Your task to perform on an android device: Open the phone app and click the voicemail tab. Image 0: 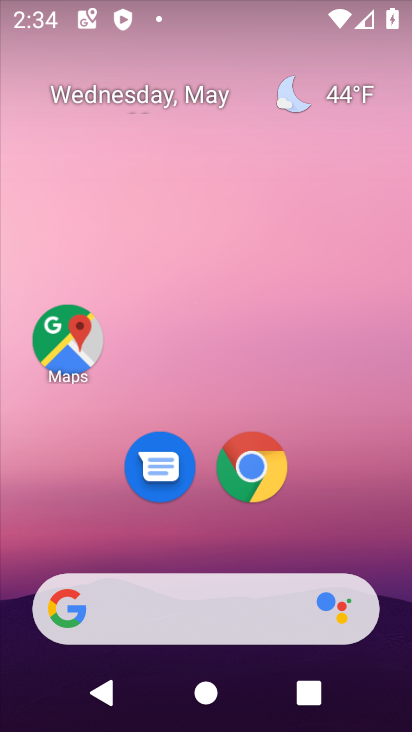
Step 0: drag from (371, 671) to (203, 52)
Your task to perform on an android device: Open the phone app and click the voicemail tab. Image 1: 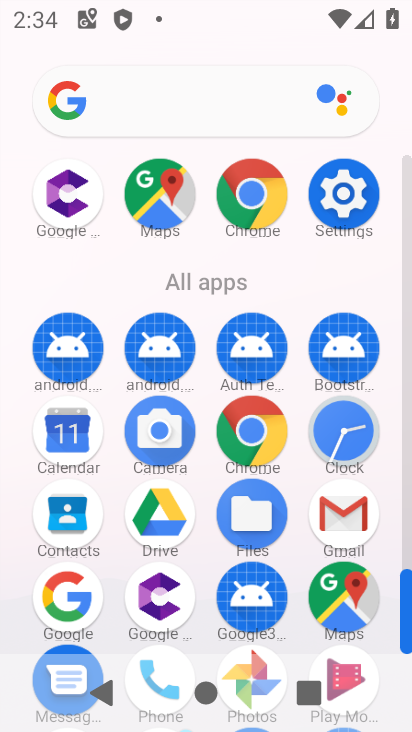
Step 1: click (158, 668)
Your task to perform on an android device: Open the phone app and click the voicemail tab. Image 2: 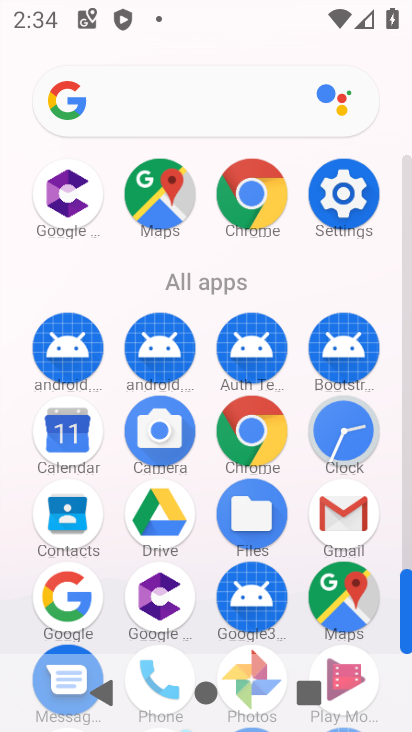
Step 2: drag from (202, 581) to (115, 121)
Your task to perform on an android device: Open the phone app and click the voicemail tab. Image 3: 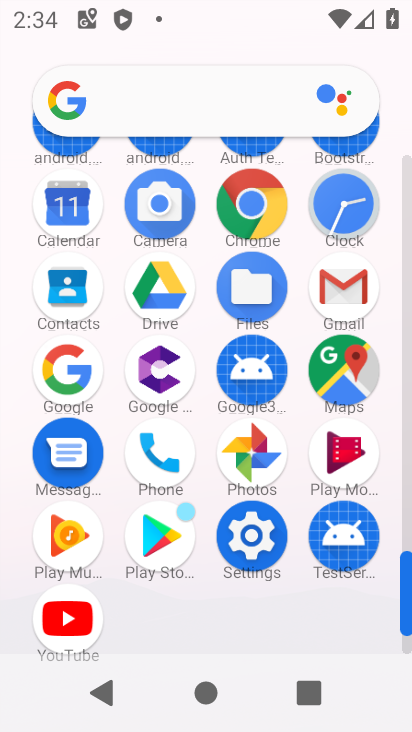
Step 3: drag from (199, 532) to (142, 242)
Your task to perform on an android device: Open the phone app and click the voicemail tab. Image 4: 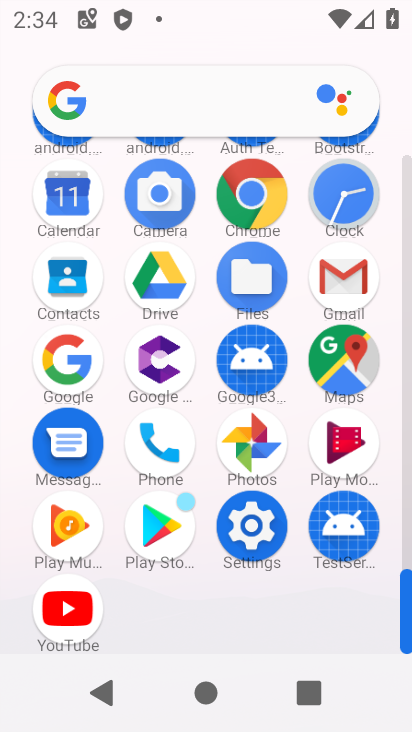
Step 4: click (154, 458)
Your task to perform on an android device: Open the phone app and click the voicemail tab. Image 5: 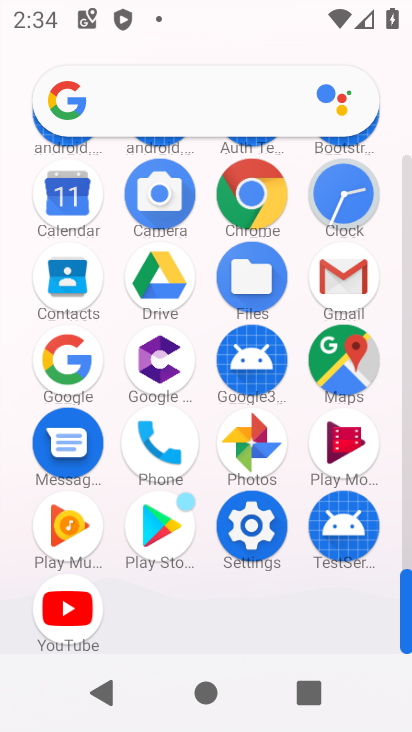
Step 5: click (157, 447)
Your task to perform on an android device: Open the phone app and click the voicemail tab. Image 6: 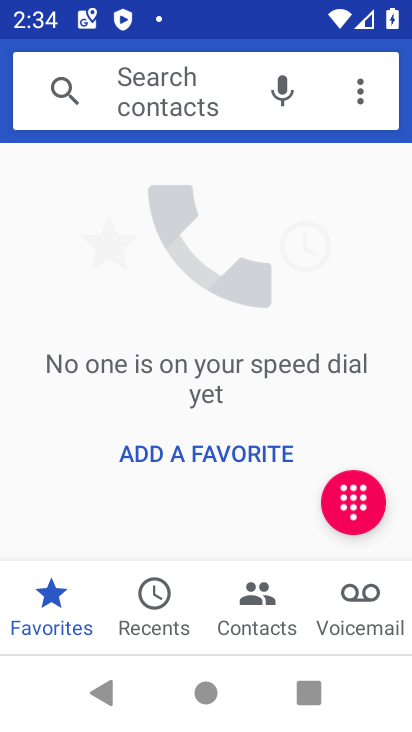
Step 6: click (353, 603)
Your task to perform on an android device: Open the phone app and click the voicemail tab. Image 7: 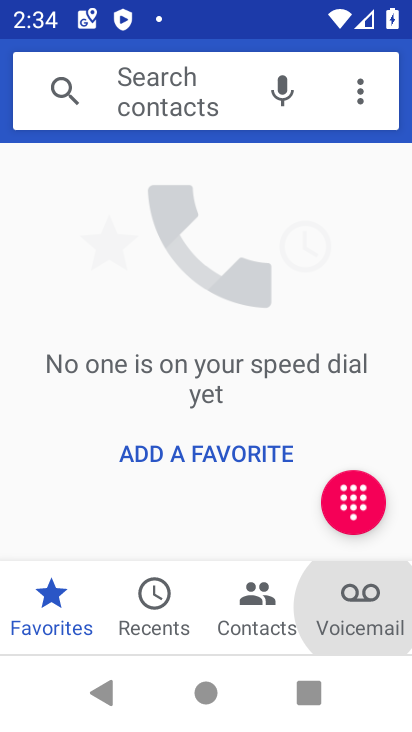
Step 7: click (350, 604)
Your task to perform on an android device: Open the phone app and click the voicemail tab. Image 8: 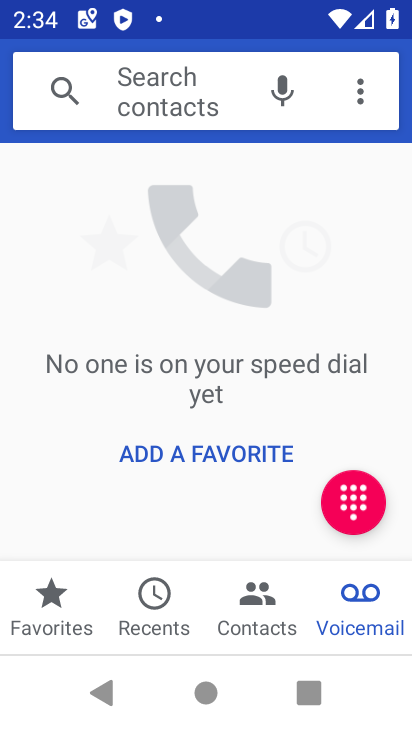
Step 8: click (349, 603)
Your task to perform on an android device: Open the phone app and click the voicemail tab. Image 9: 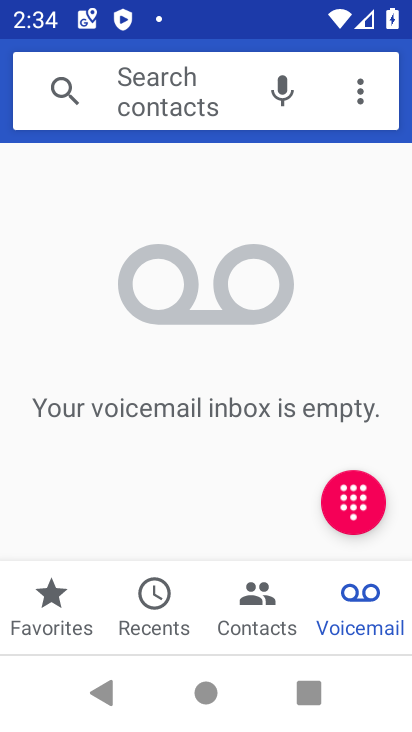
Step 9: click (363, 601)
Your task to perform on an android device: Open the phone app and click the voicemail tab. Image 10: 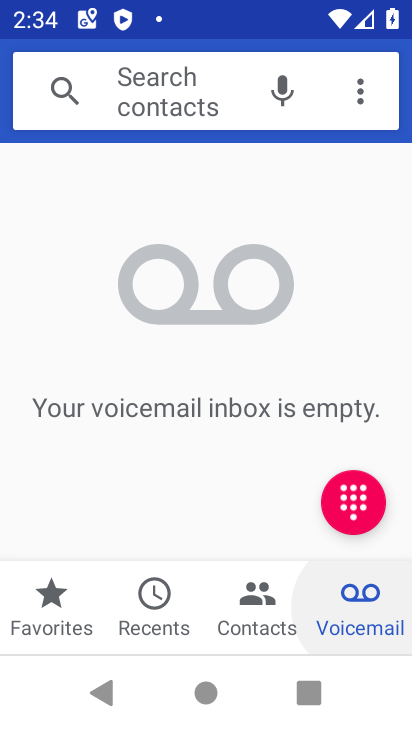
Step 10: click (367, 599)
Your task to perform on an android device: Open the phone app and click the voicemail tab. Image 11: 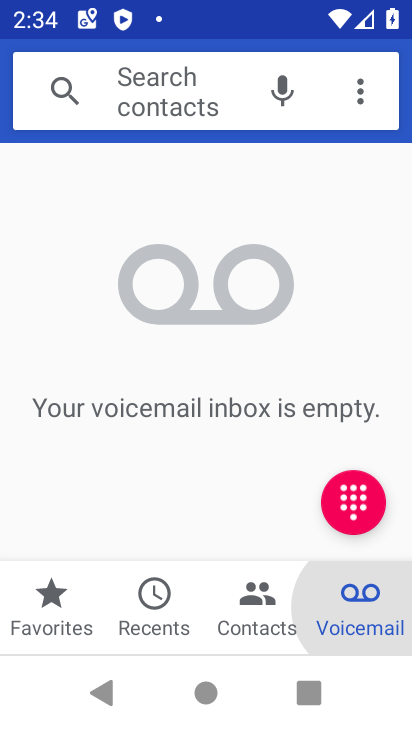
Step 11: click (367, 599)
Your task to perform on an android device: Open the phone app and click the voicemail tab. Image 12: 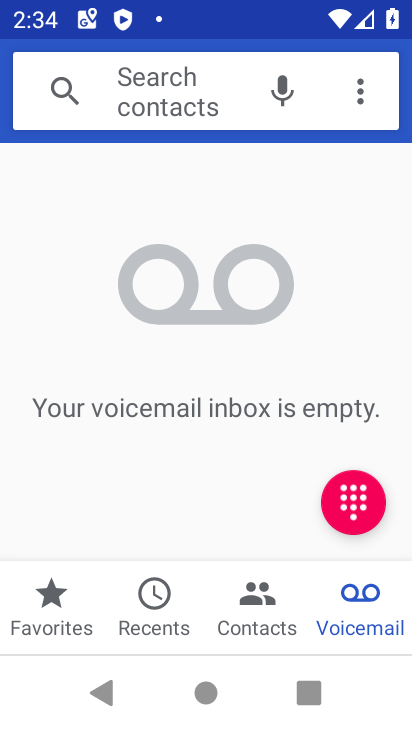
Step 12: task complete